Your task to perform on an android device: open the mobile data screen to see how much data has been used Image 0: 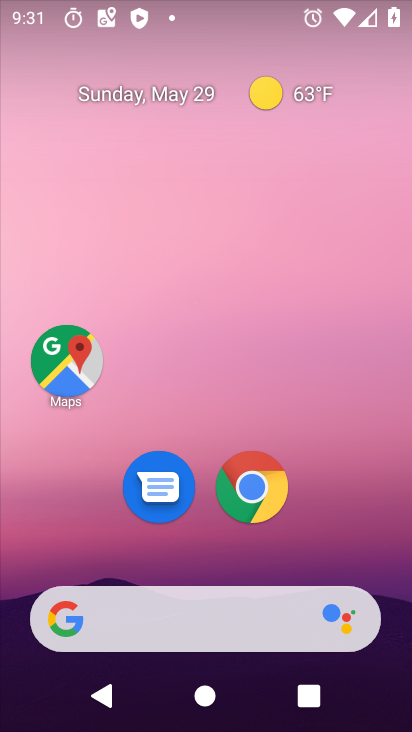
Step 0: drag from (223, 609) to (263, 173)
Your task to perform on an android device: open the mobile data screen to see how much data has been used Image 1: 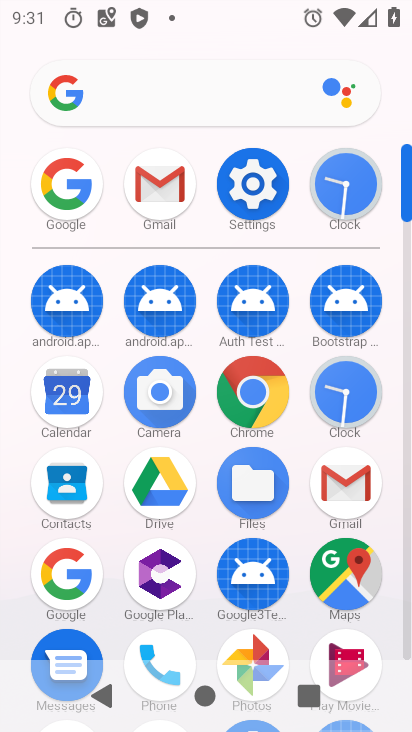
Step 1: click (247, 219)
Your task to perform on an android device: open the mobile data screen to see how much data has been used Image 2: 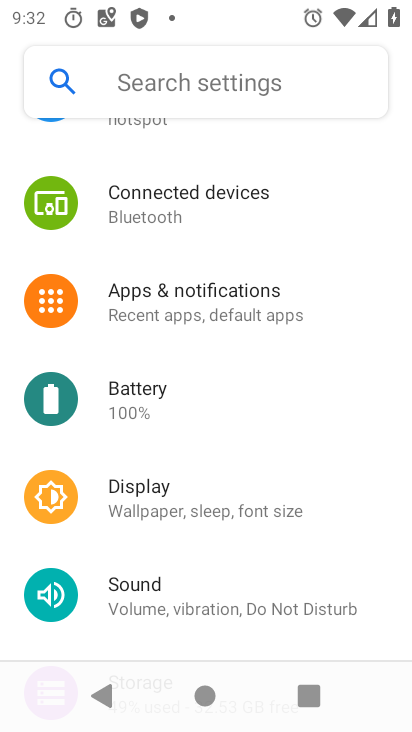
Step 2: drag from (194, 330) to (200, 549)
Your task to perform on an android device: open the mobile data screen to see how much data has been used Image 3: 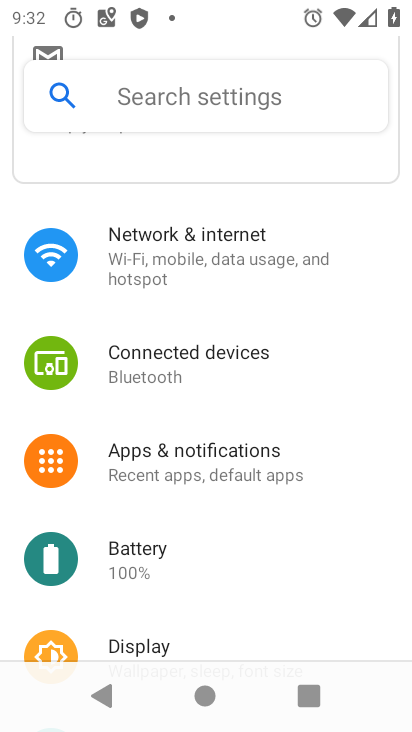
Step 3: click (221, 263)
Your task to perform on an android device: open the mobile data screen to see how much data has been used Image 4: 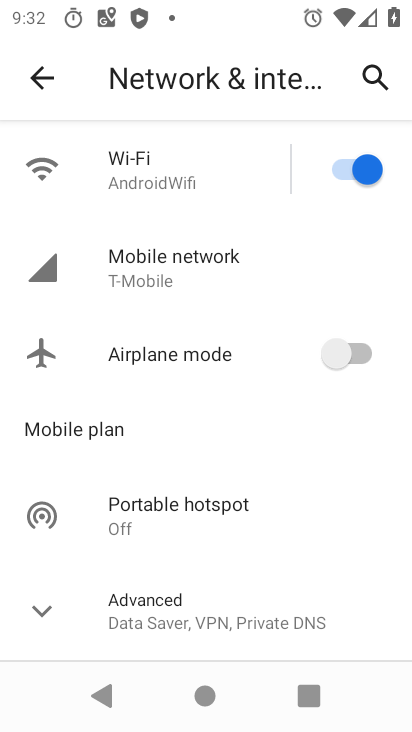
Step 4: click (274, 271)
Your task to perform on an android device: open the mobile data screen to see how much data has been used Image 5: 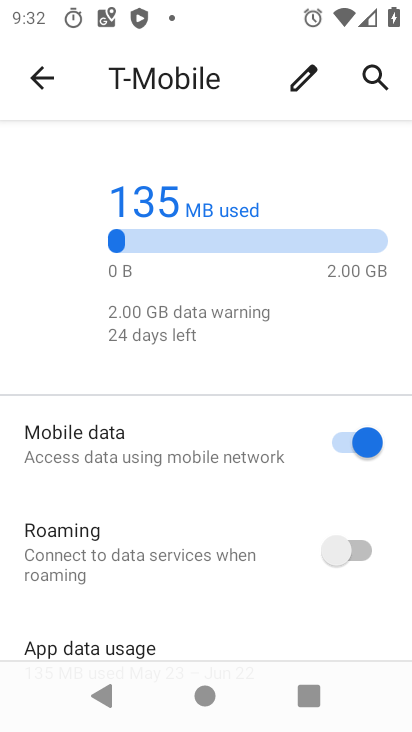
Step 5: drag from (276, 608) to (196, 323)
Your task to perform on an android device: open the mobile data screen to see how much data has been used Image 6: 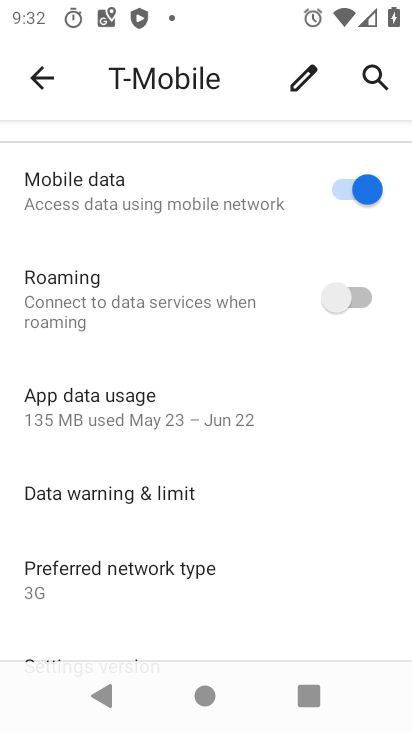
Step 6: click (227, 414)
Your task to perform on an android device: open the mobile data screen to see how much data has been used Image 7: 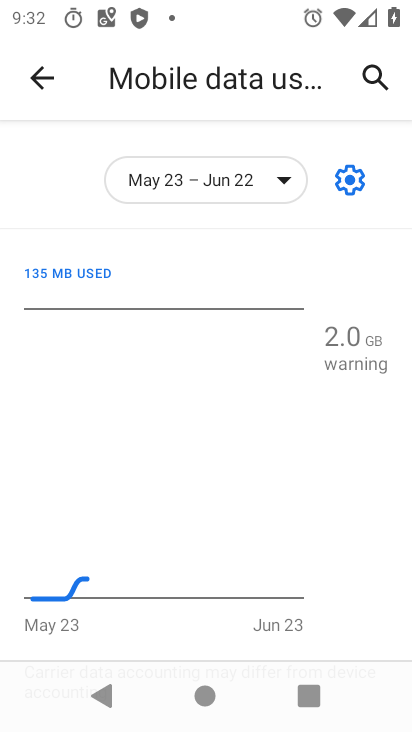
Step 7: task complete